Your task to perform on an android device: turn on showing notifications on the lock screen Image 0: 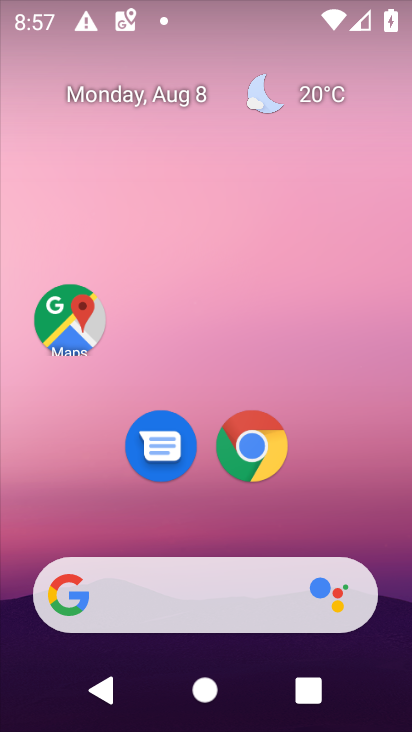
Step 0: drag from (393, 638) to (357, 103)
Your task to perform on an android device: turn on showing notifications on the lock screen Image 1: 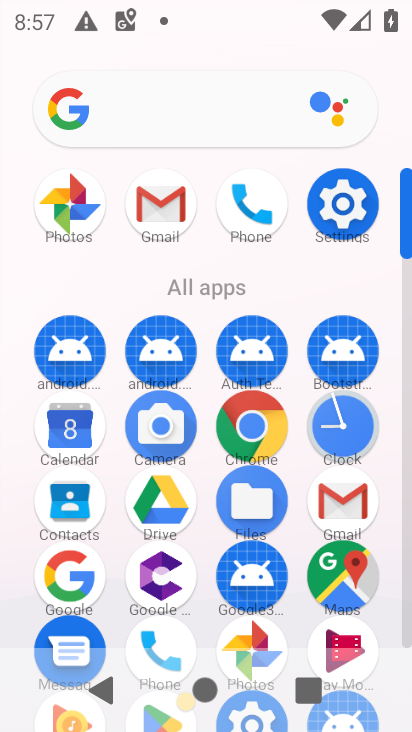
Step 1: click (407, 623)
Your task to perform on an android device: turn on showing notifications on the lock screen Image 2: 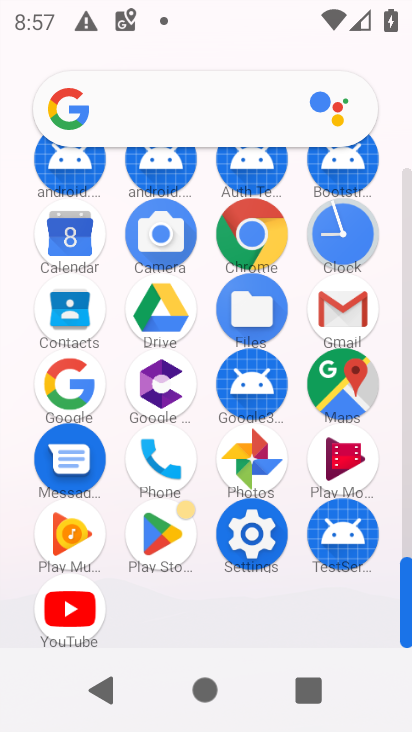
Step 2: click (250, 535)
Your task to perform on an android device: turn on showing notifications on the lock screen Image 3: 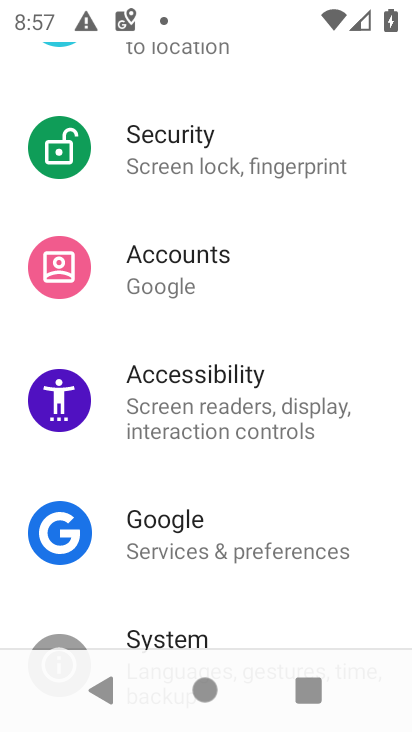
Step 3: drag from (347, 194) to (321, 475)
Your task to perform on an android device: turn on showing notifications on the lock screen Image 4: 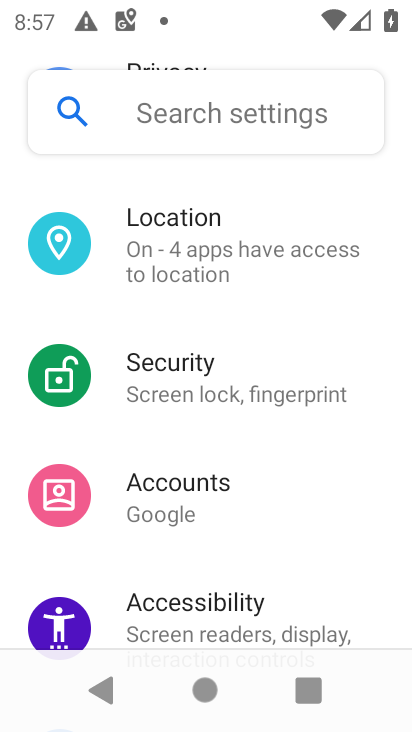
Step 4: drag from (342, 199) to (369, 569)
Your task to perform on an android device: turn on showing notifications on the lock screen Image 5: 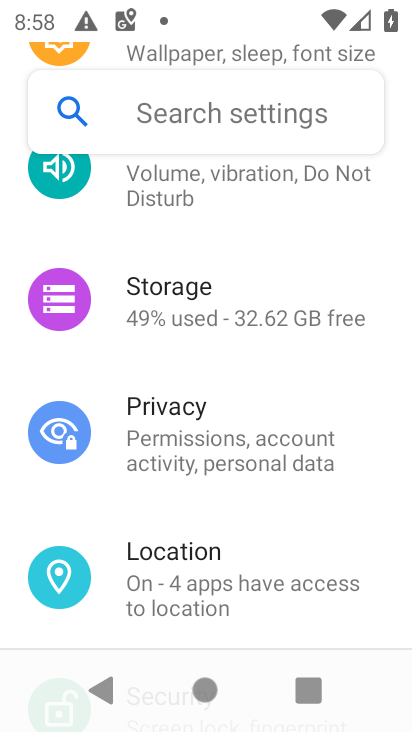
Step 5: drag from (312, 201) to (337, 566)
Your task to perform on an android device: turn on showing notifications on the lock screen Image 6: 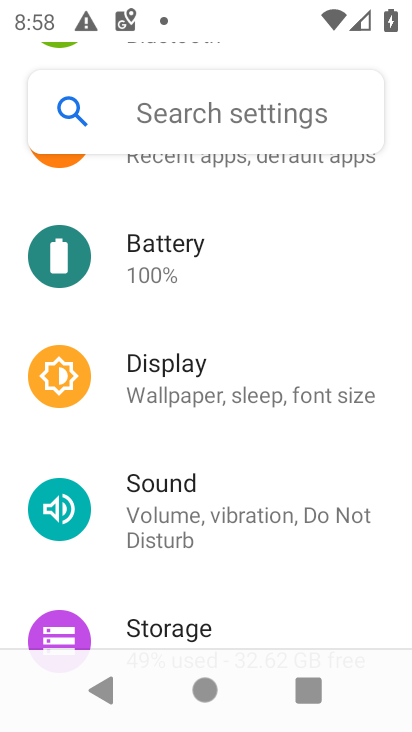
Step 6: drag from (285, 195) to (296, 496)
Your task to perform on an android device: turn on showing notifications on the lock screen Image 7: 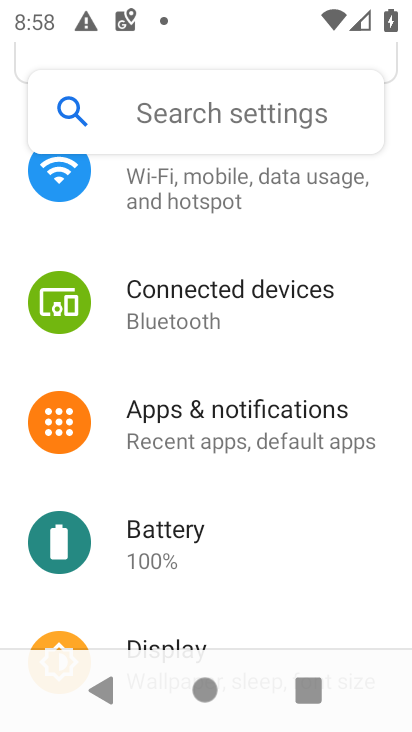
Step 7: click (175, 408)
Your task to perform on an android device: turn on showing notifications on the lock screen Image 8: 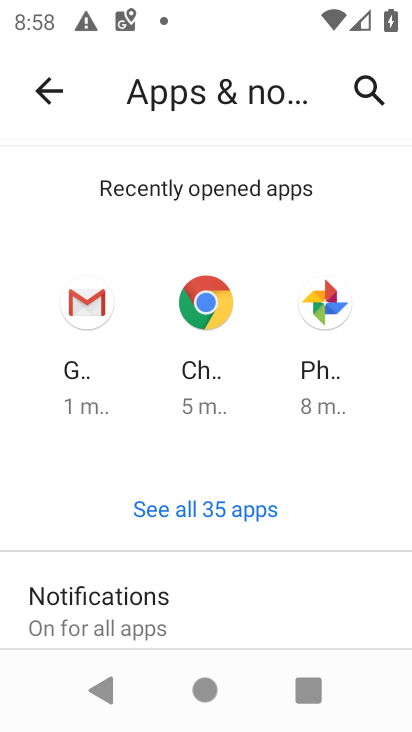
Step 8: drag from (311, 603) to (311, 157)
Your task to perform on an android device: turn on showing notifications on the lock screen Image 9: 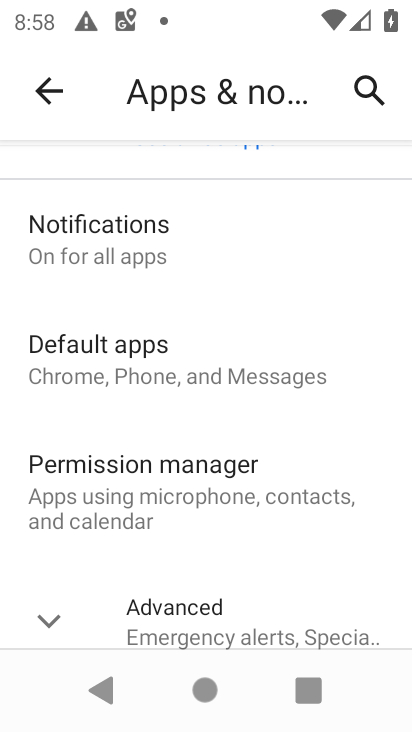
Step 9: click (122, 253)
Your task to perform on an android device: turn on showing notifications on the lock screen Image 10: 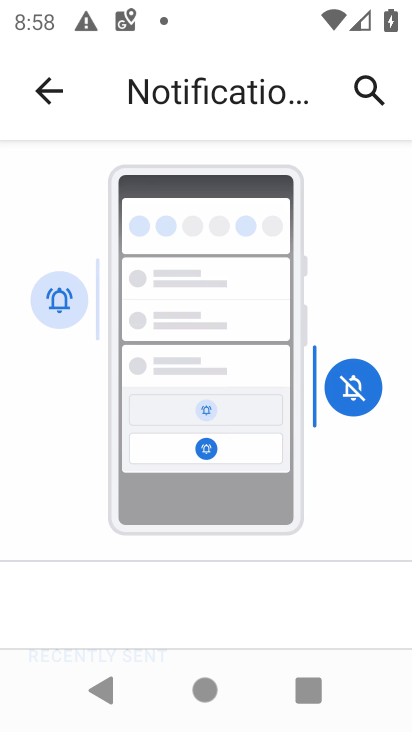
Step 10: drag from (321, 573) to (293, 207)
Your task to perform on an android device: turn on showing notifications on the lock screen Image 11: 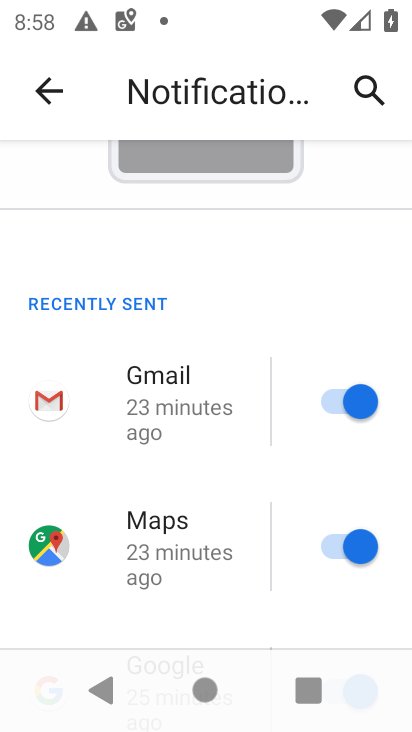
Step 11: drag from (273, 625) to (270, 167)
Your task to perform on an android device: turn on showing notifications on the lock screen Image 12: 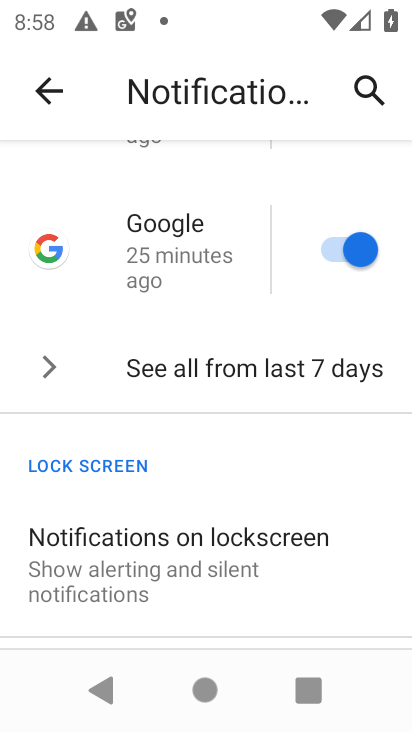
Step 12: drag from (269, 513) to (280, 185)
Your task to perform on an android device: turn on showing notifications on the lock screen Image 13: 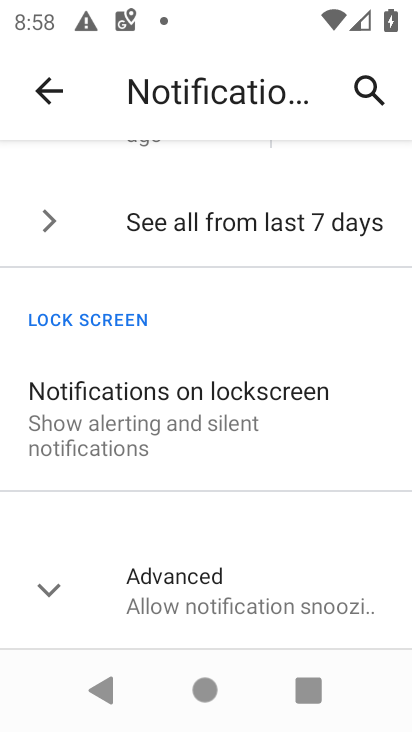
Step 13: click (143, 405)
Your task to perform on an android device: turn on showing notifications on the lock screen Image 14: 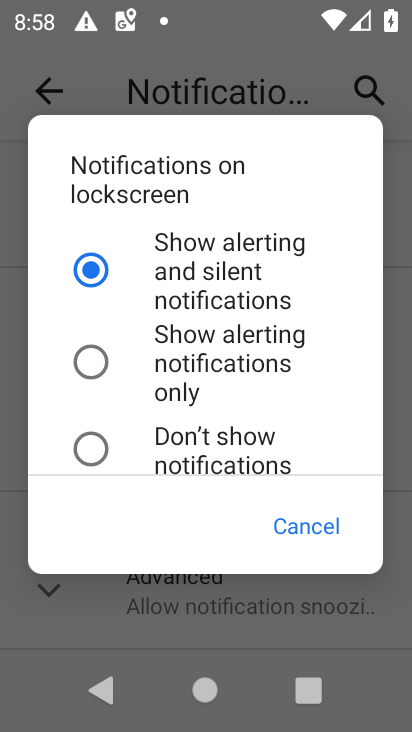
Step 14: task complete